Your task to perform on an android device: Go to Reddit.com Image 0: 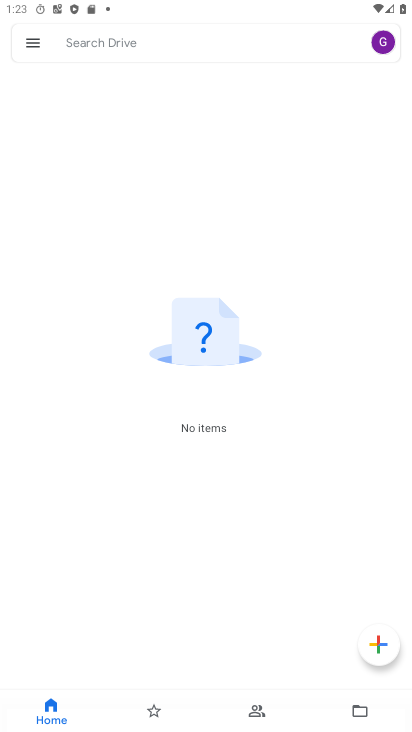
Step 0: drag from (262, 593) to (241, 169)
Your task to perform on an android device: Go to Reddit.com Image 1: 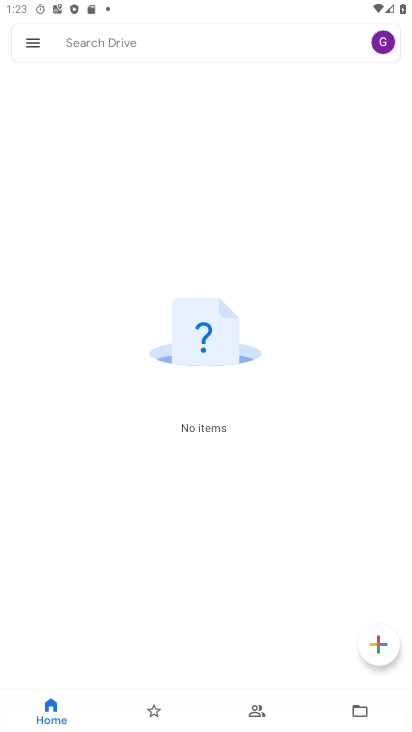
Step 1: drag from (255, 462) to (255, 374)
Your task to perform on an android device: Go to Reddit.com Image 2: 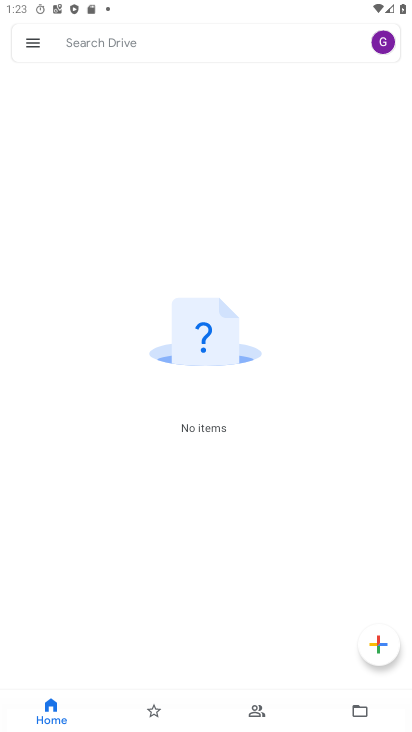
Step 2: drag from (169, 494) to (193, 319)
Your task to perform on an android device: Go to Reddit.com Image 3: 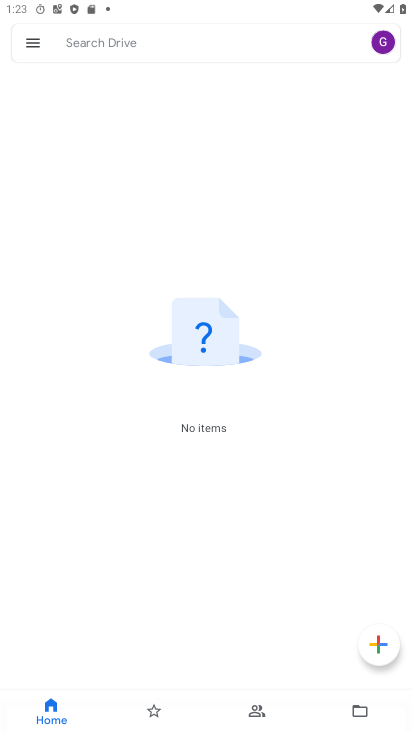
Step 3: press home button
Your task to perform on an android device: Go to Reddit.com Image 4: 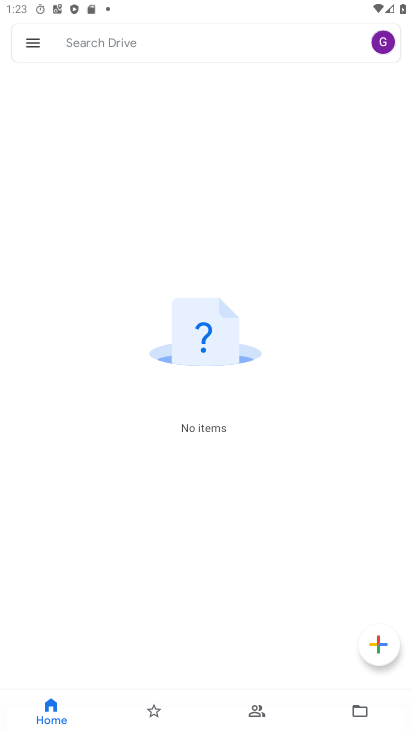
Step 4: drag from (44, 570) to (117, 386)
Your task to perform on an android device: Go to Reddit.com Image 5: 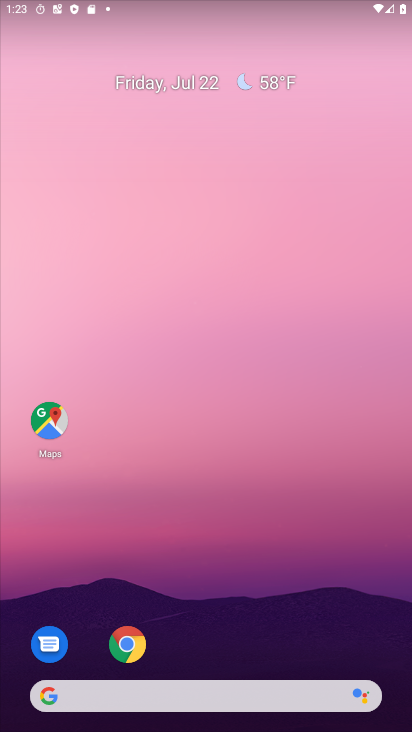
Step 5: drag from (160, 644) to (209, 217)
Your task to perform on an android device: Go to Reddit.com Image 6: 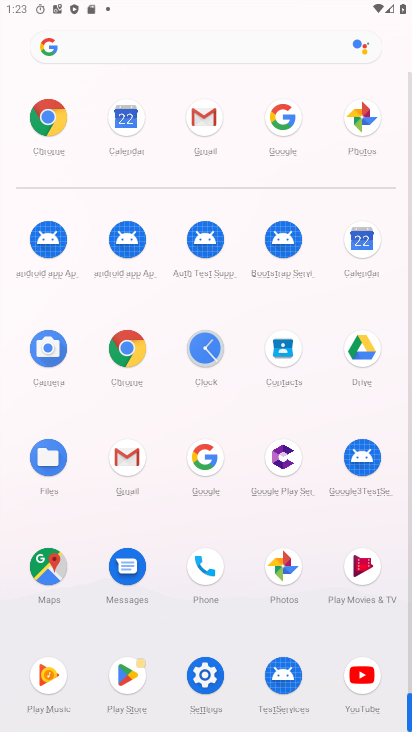
Step 6: click (137, 342)
Your task to perform on an android device: Go to Reddit.com Image 7: 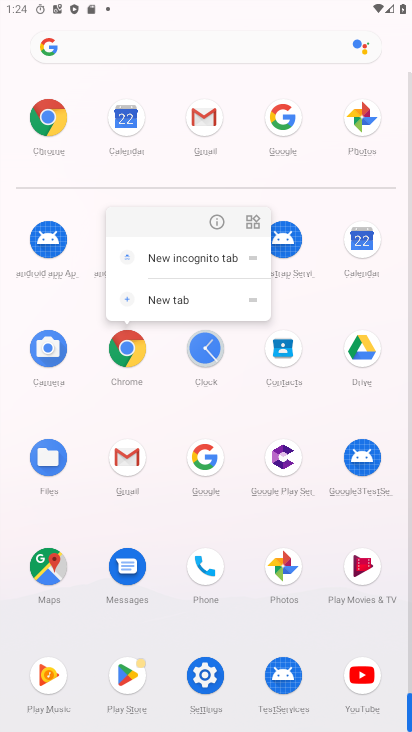
Step 7: click (222, 231)
Your task to perform on an android device: Go to Reddit.com Image 8: 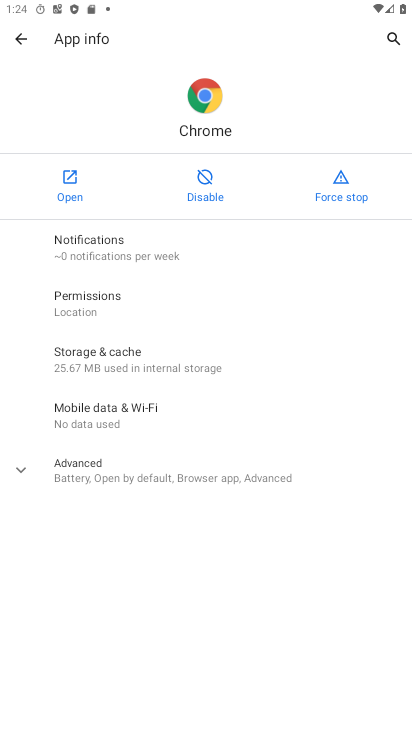
Step 8: click (82, 180)
Your task to perform on an android device: Go to Reddit.com Image 9: 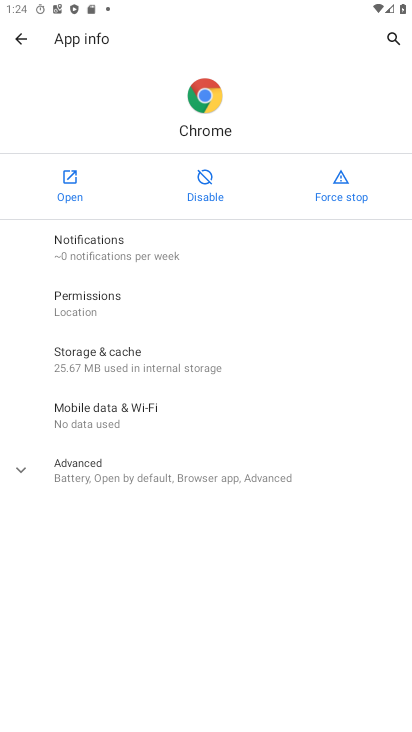
Step 9: click (82, 180)
Your task to perform on an android device: Go to Reddit.com Image 10: 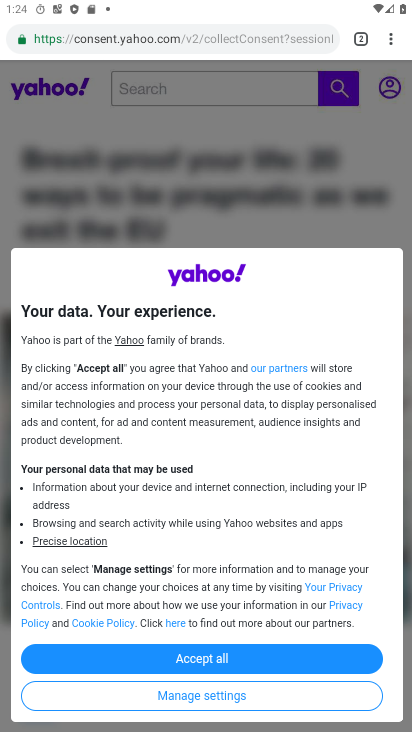
Step 10: drag from (234, 566) to (233, 382)
Your task to perform on an android device: Go to Reddit.com Image 11: 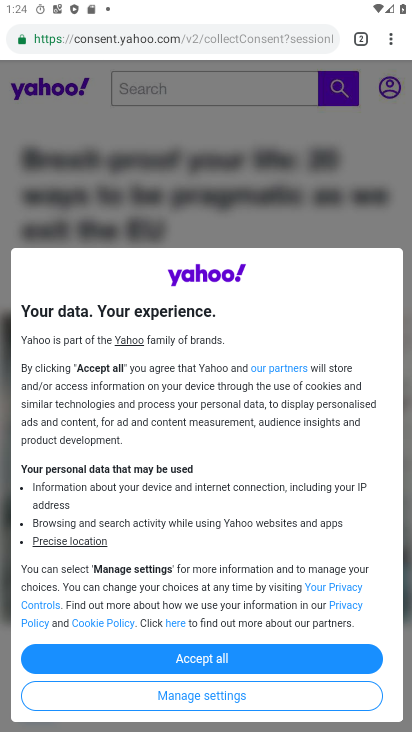
Step 11: drag from (208, 562) to (233, 364)
Your task to perform on an android device: Go to Reddit.com Image 12: 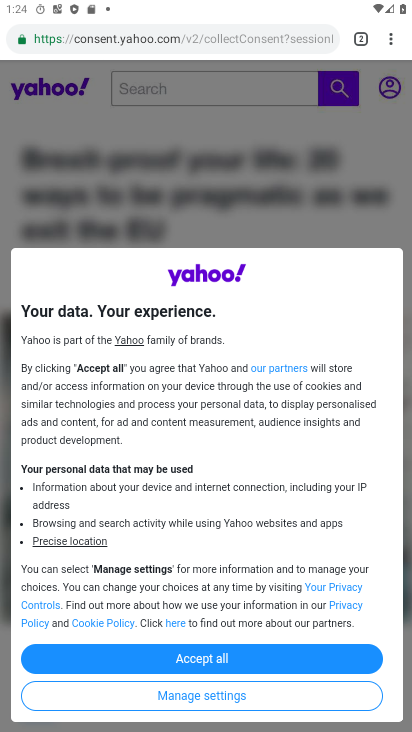
Step 12: click (185, 36)
Your task to perform on an android device: Go to Reddit.com Image 13: 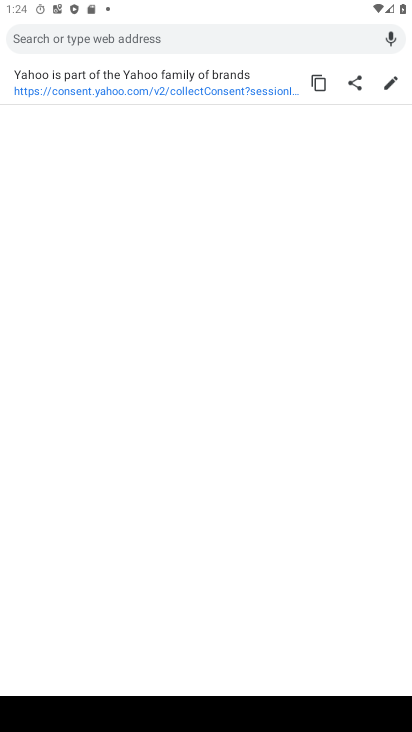
Step 13: type "reddit.com"
Your task to perform on an android device: Go to Reddit.com Image 14: 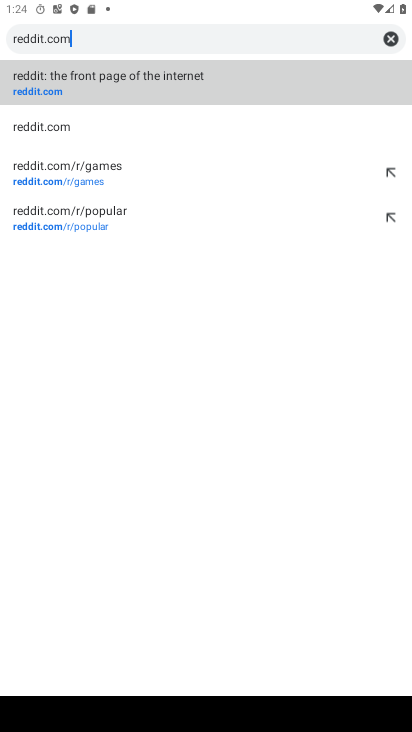
Step 14: click (20, 64)
Your task to perform on an android device: Go to Reddit.com Image 15: 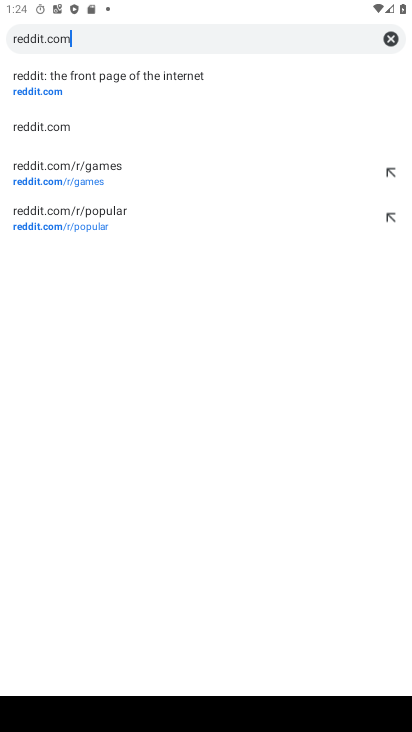
Step 15: click (29, 70)
Your task to perform on an android device: Go to Reddit.com Image 16: 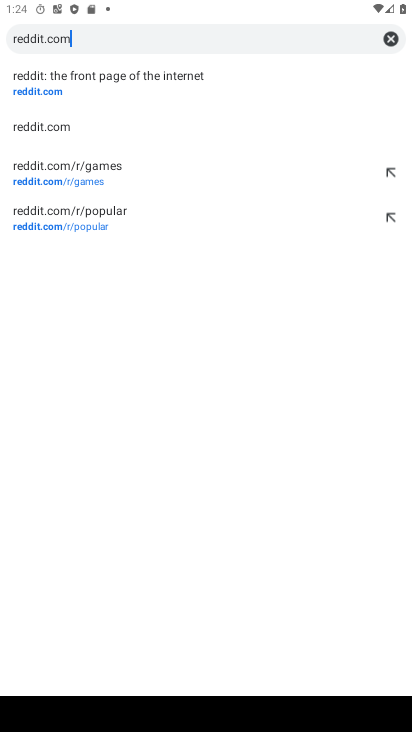
Step 16: click (28, 87)
Your task to perform on an android device: Go to Reddit.com Image 17: 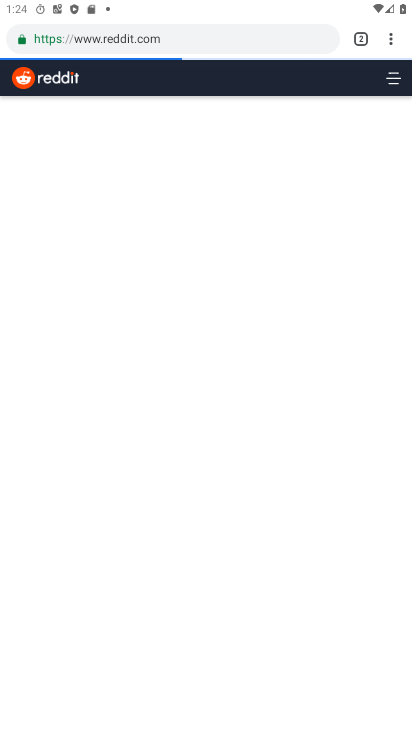
Step 17: task complete